Your task to perform on an android device: toggle wifi Image 0: 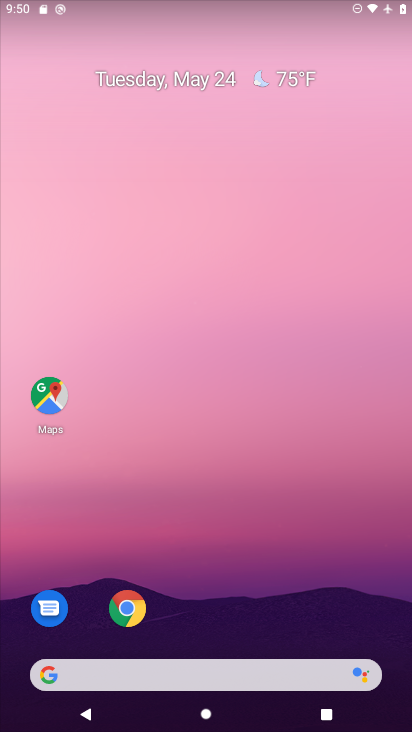
Step 0: drag from (332, 569) to (216, 5)
Your task to perform on an android device: toggle wifi Image 1: 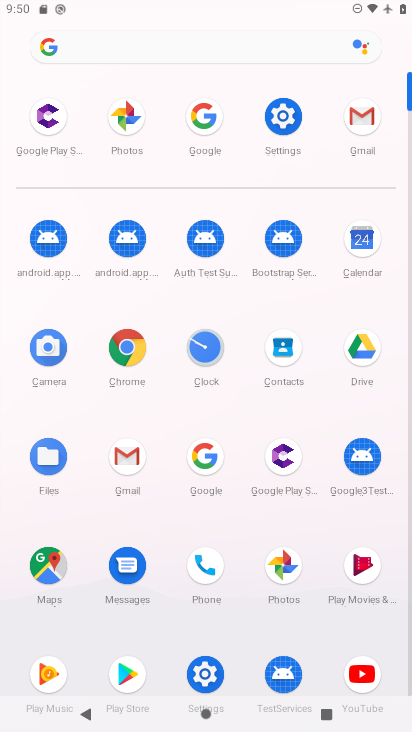
Step 1: click (280, 111)
Your task to perform on an android device: toggle wifi Image 2: 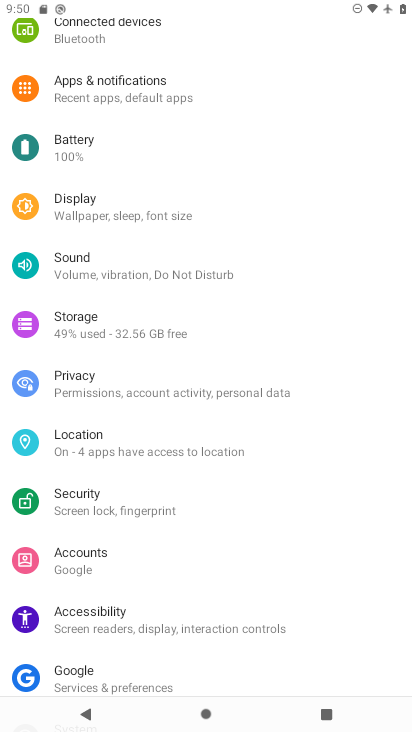
Step 2: press home button
Your task to perform on an android device: toggle wifi Image 3: 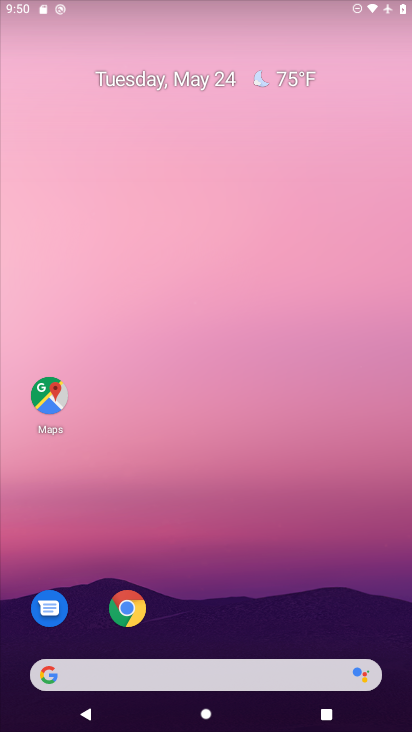
Step 3: drag from (264, 422) to (188, 15)
Your task to perform on an android device: toggle wifi Image 4: 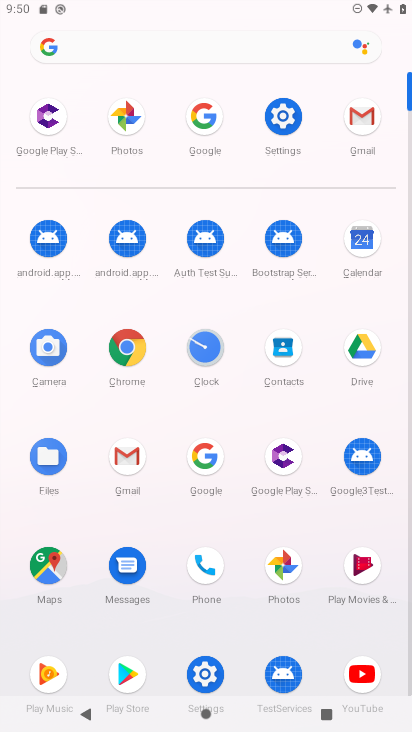
Step 4: click (290, 116)
Your task to perform on an android device: toggle wifi Image 5: 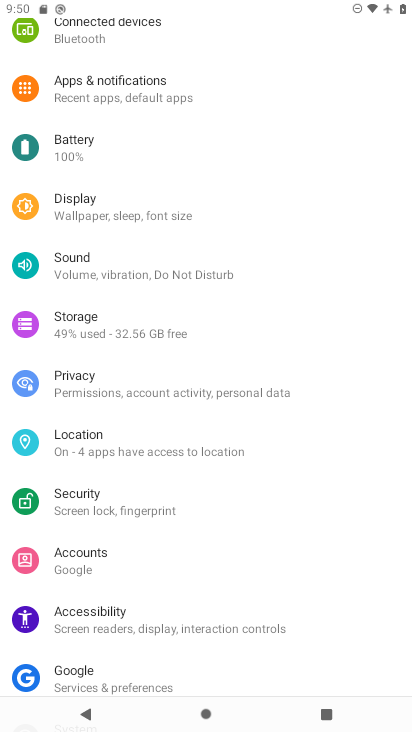
Step 5: drag from (232, 122) to (220, 709)
Your task to perform on an android device: toggle wifi Image 6: 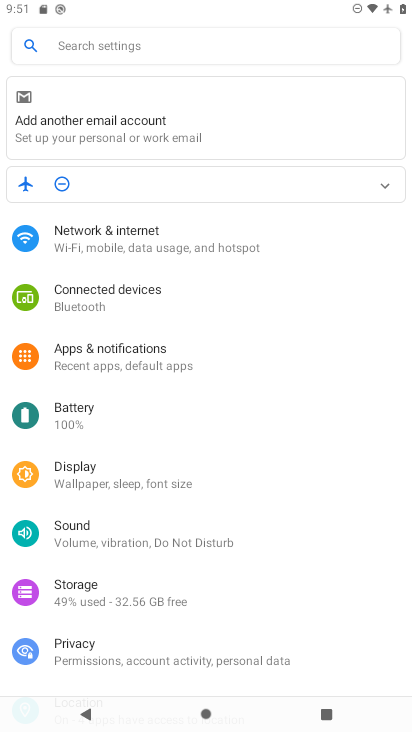
Step 6: click (198, 227)
Your task to perform on an android device: toggle wifi Image 7: 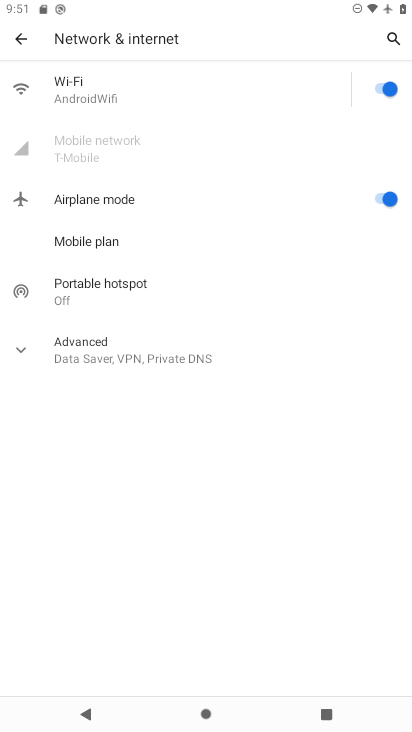
Step 7: click (394, 86)
Your task to perform on an android device: toggle wifi Image 8: 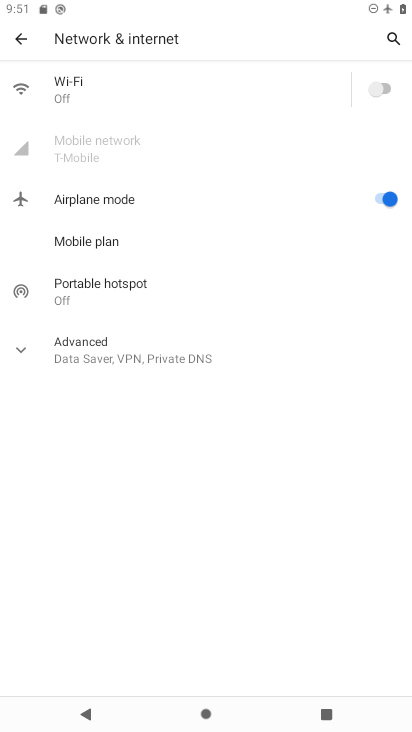
Step 8: task complete